Your task to perform on an android device: Open Chrome and go to settings Image 0: 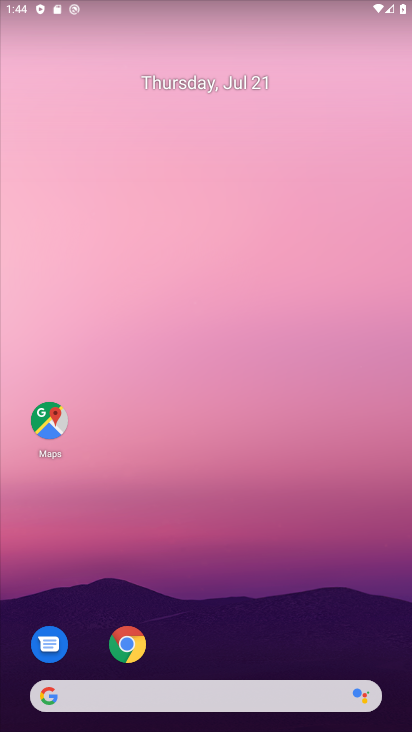
Step 0: click (127, 645)
Your task to perform on an android device: Open Chrome and go to settings Image 1: 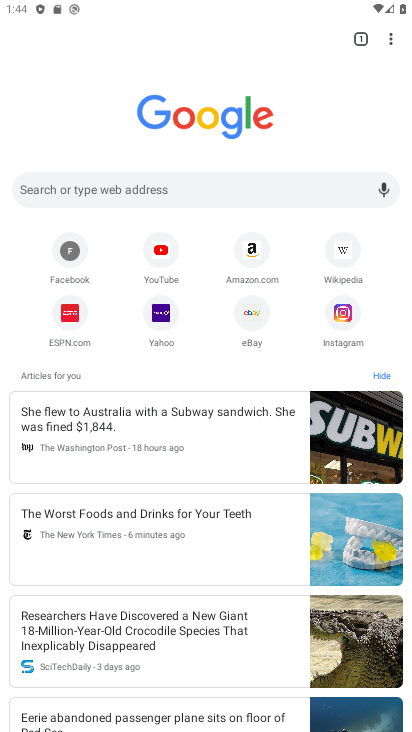
Step 1: click (394, 43)
Your task to perform on an android device: Open Chrome and go to settings Image 2: 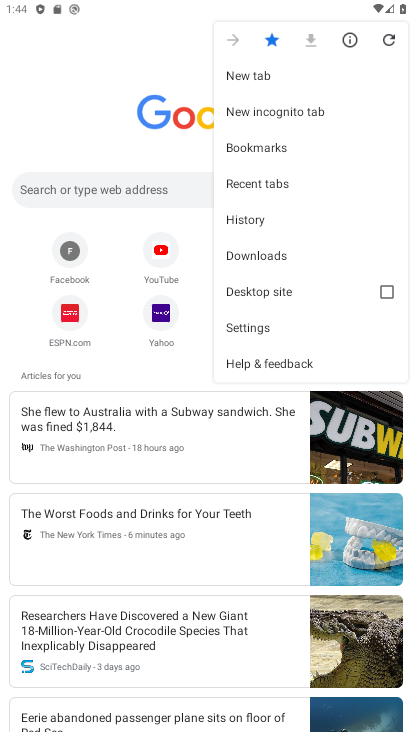
Step 2: click (255, 330)
Your task to perform on an android device: Open Chrome and go to settings Image 3: 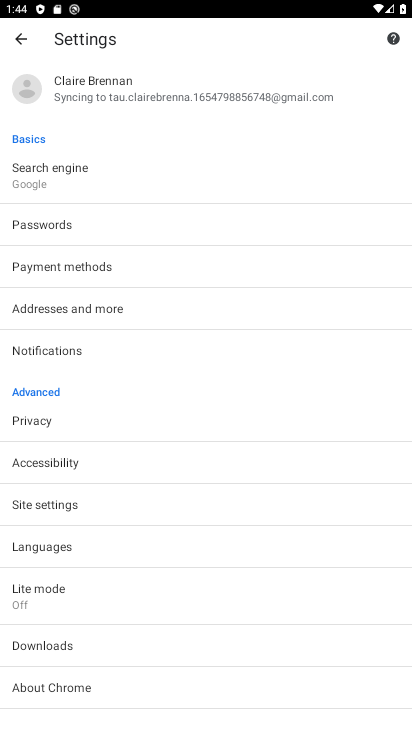
Step 3: task complete